Your task to perform on an android device: change notifications settings Image 0: 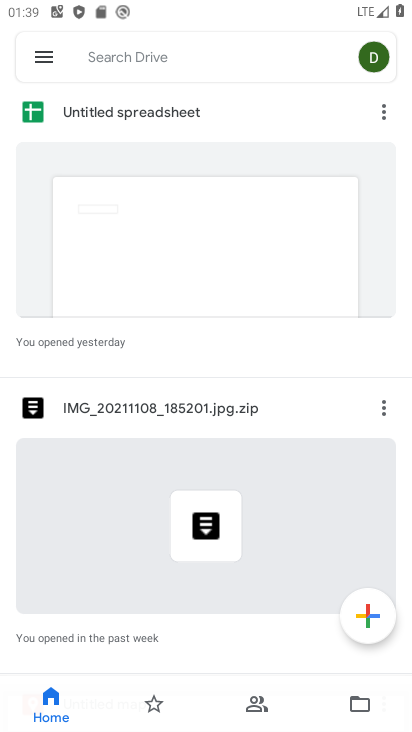
Step 0: press home button
Your task to perform on an android device: change notifications settings Image 1: 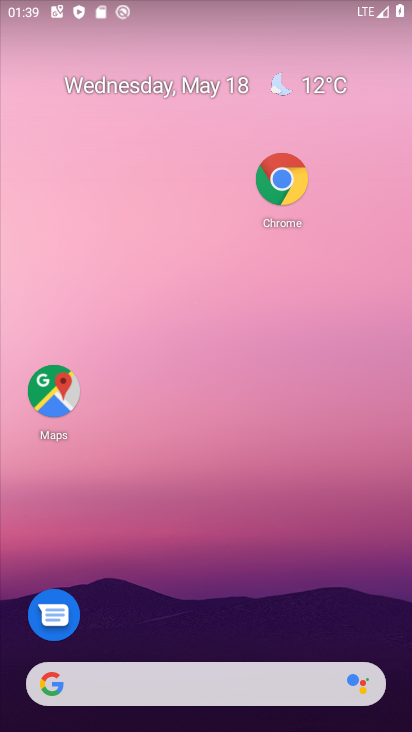
Step 1: drag from (172, 672) to (308, 108)
Your task to perform on an android device: change notifications settings Image 2: 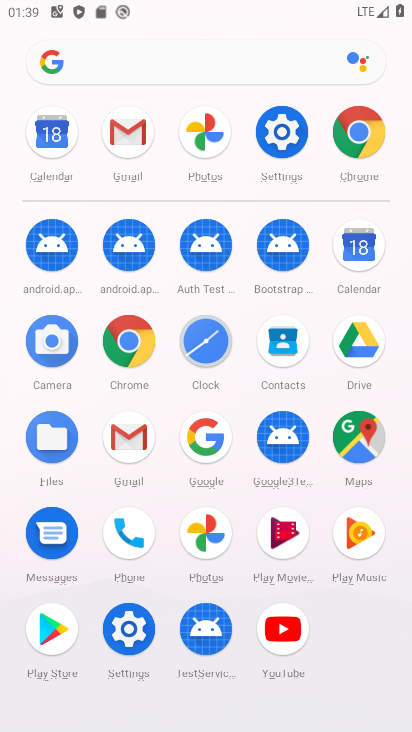
Step 2: click (293, 138)
Your task to perform on an android device: change notifications settings Image 3: 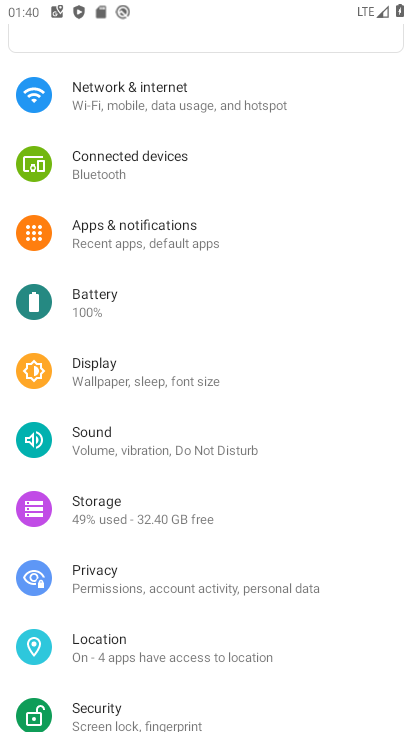
Step 3: click (152, 222)
Your task to perform on an android device: change notifications settings Image 4: 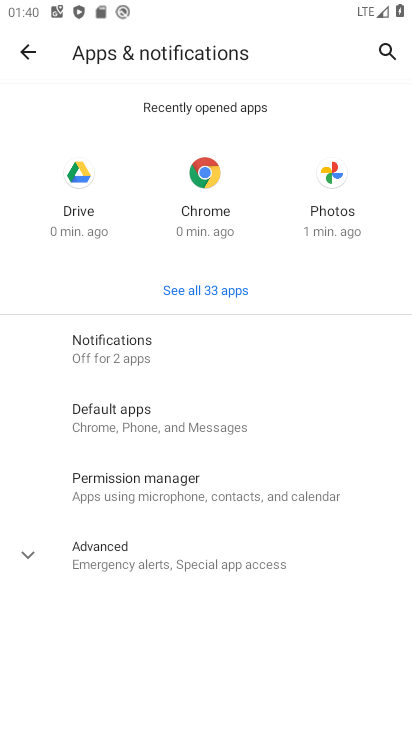
Step 4: click (151, 349)
Your task to perform on an android device: change notifications settings Image 5: 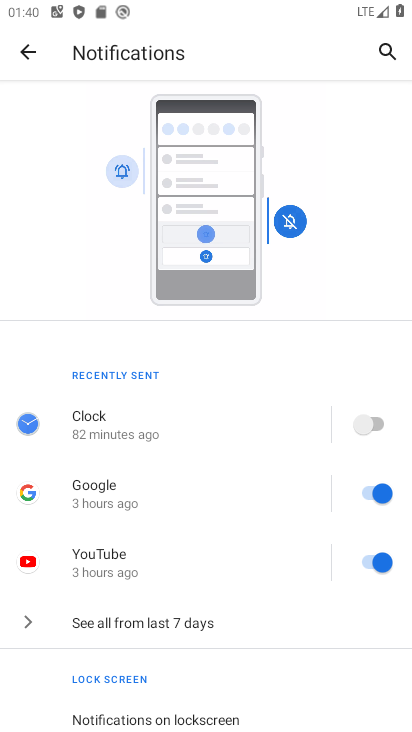
Step 5: click (373, 426)
Your task to perform on an android device: change notifications settings Image 6: 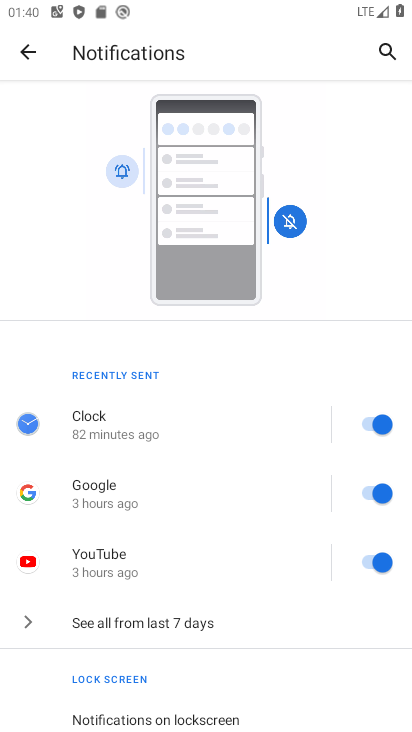
Step 6: task complete